Your task to perform on an android device: change alarm snooze length Image 0: 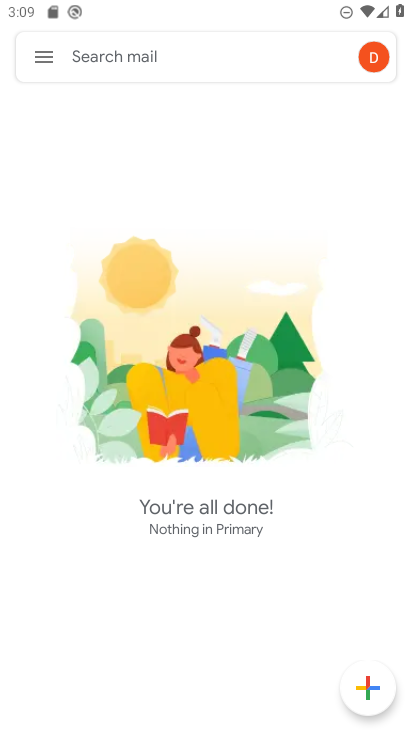
Step 0: press home button
Your task to perform on an android device: change alarm snooze length Image 1: 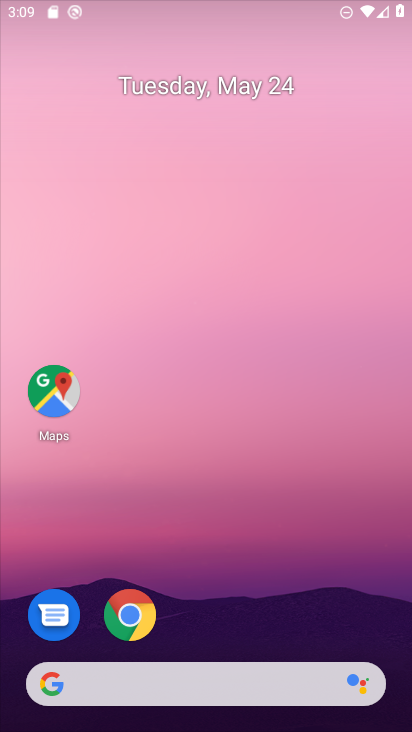
Step 1: drag from (268, 241) to (296, 13)
Your task to perform on an android device: change alarm snooze length Image 2: 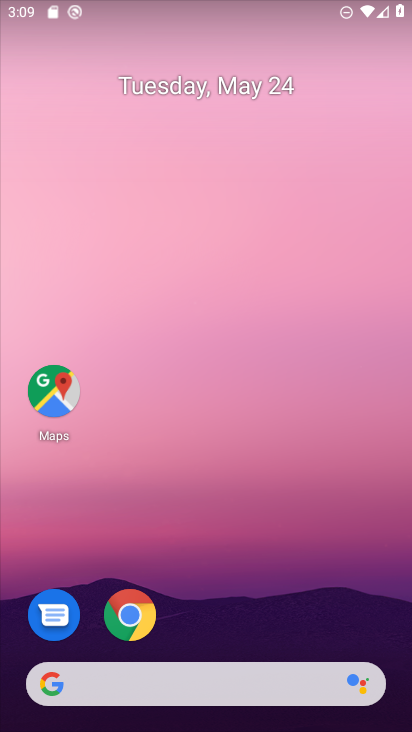
Step 2: drag from (237, 583) to (333, 63)
Your task to perform on an android device: change alarm snooze length Image 3: 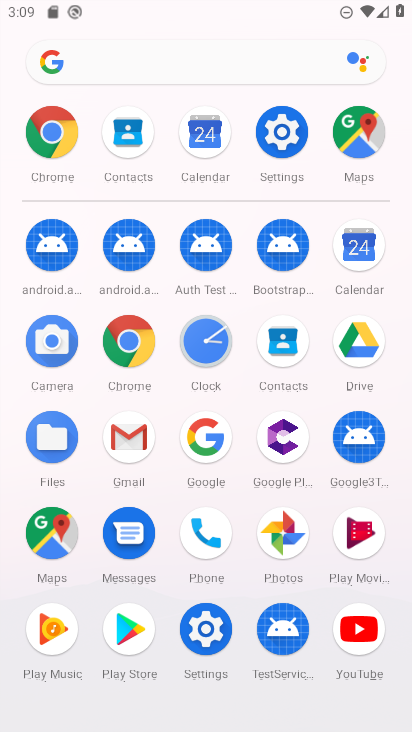
Step 3: click (291, 144)
Your task to perform on an android device: change alarm snooze length Image 4: 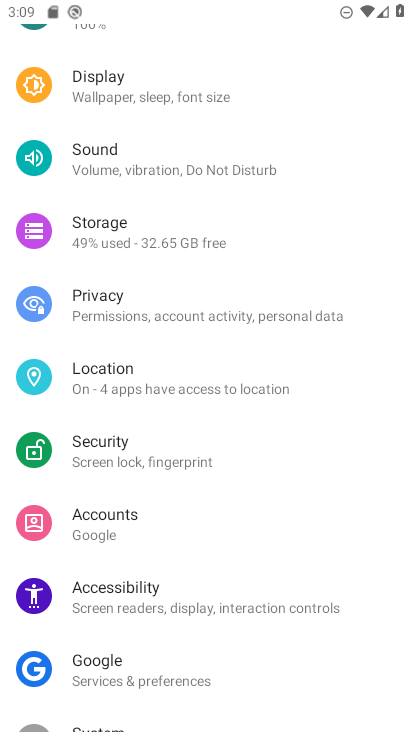
Step 4: drag from (223, 305) to (198, 620)
Your task to perform on an android device: change alarm snooze length Image 5: 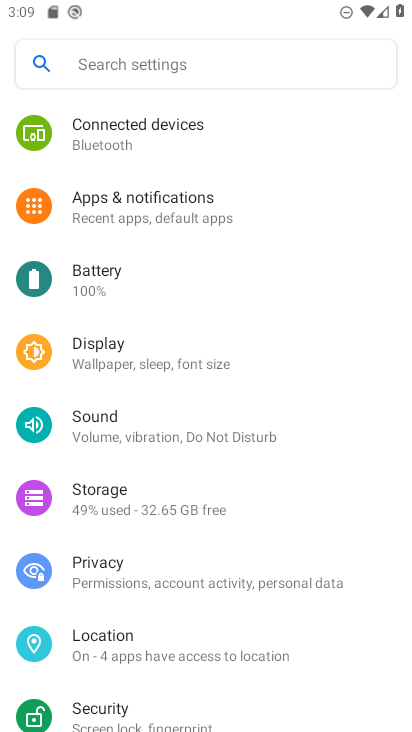
Step 5: drag from (253, 298) to (241, 635)
Your task to perform on an android device: change alarm snooze length Image 6: 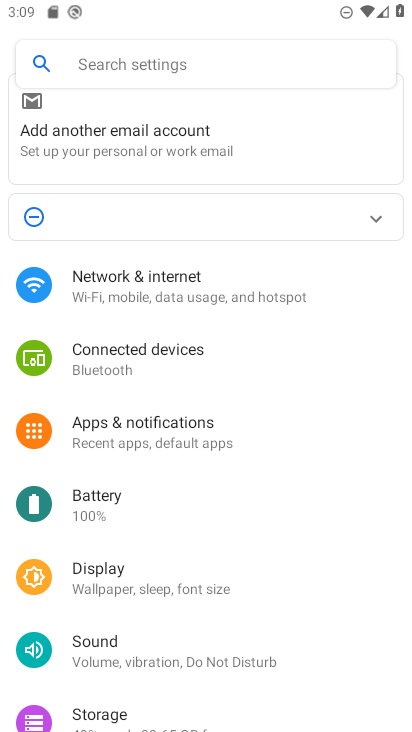
Step 6: drag from (202, 565) to (295, 191)
Your task to perform on an android device: change alarm snooze length Image 7: 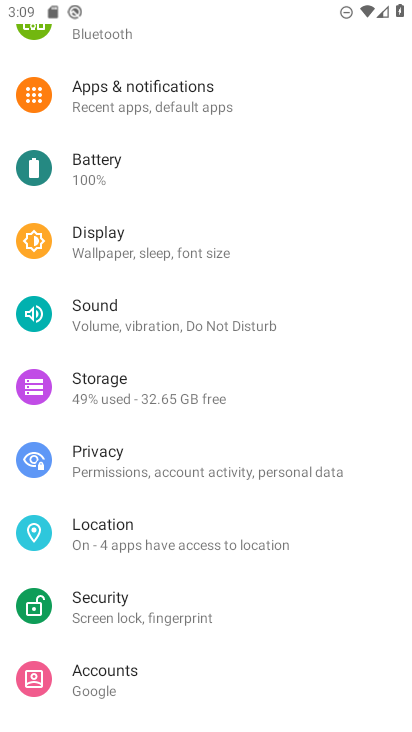
Step 7: press home button
Your task to perform on an android device: change alarm snooze length Image 8: 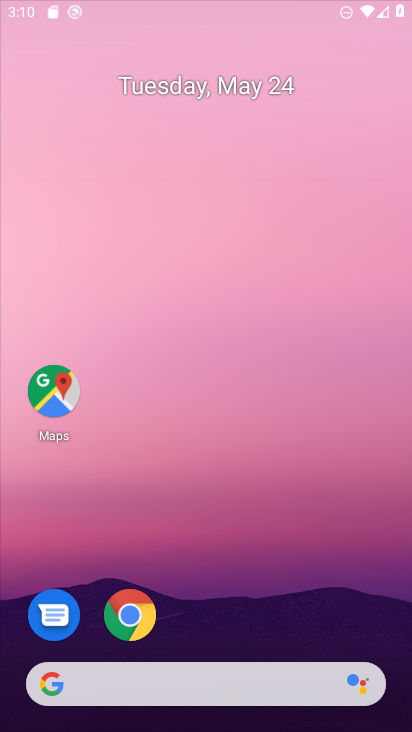
Step 8: drag from (233, 609) to (315, 134)
Your task to perform on an android device: change alarm snooze length Image 9: 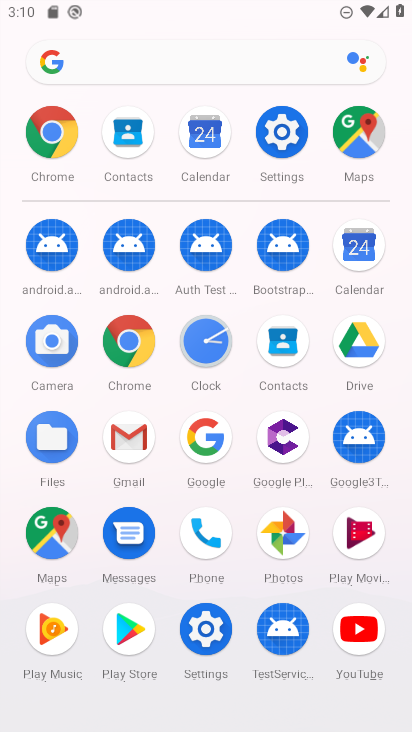
Step 9: click (208, 352)
Your task to perform on an android device: change alarm snooze length Image 10: 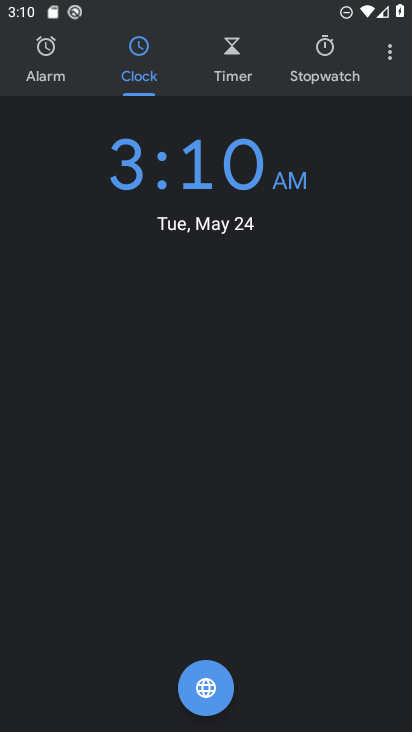
Step 10: click (395, 58)
Your task to perform on an android device: change alarm snooze length Image 11: 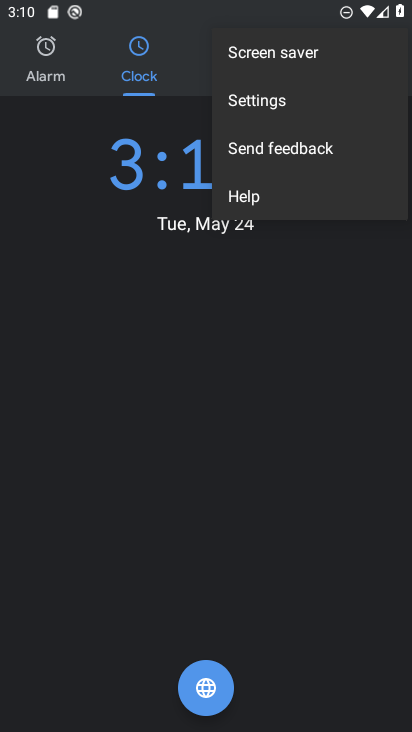
Step 11: click (257, 106)
Your task to perform on an android device: change alarm snooze length Image 12: 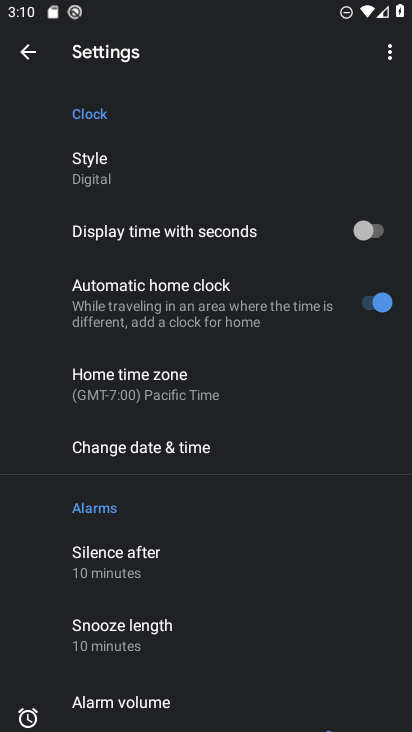
Step 12: drag from (243, 577) to (258, 469)
Your task to perform on an android device: change alarm snooze length Image 13: 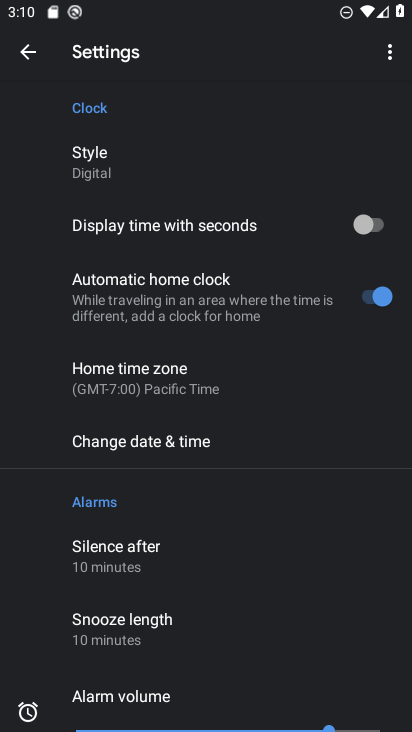
Step 13: click (144, 638)
Your task to perform on an android device: change alarm snooze length Image 14: 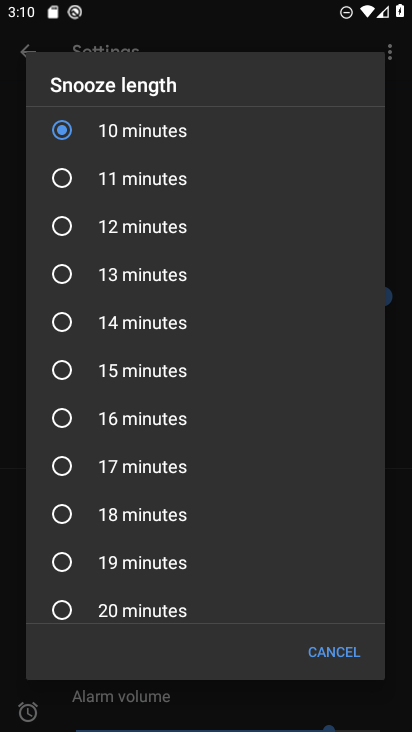
Step 14: click (86, 234)
Your task to perform on an android device: change alarm snooze length Image 15: 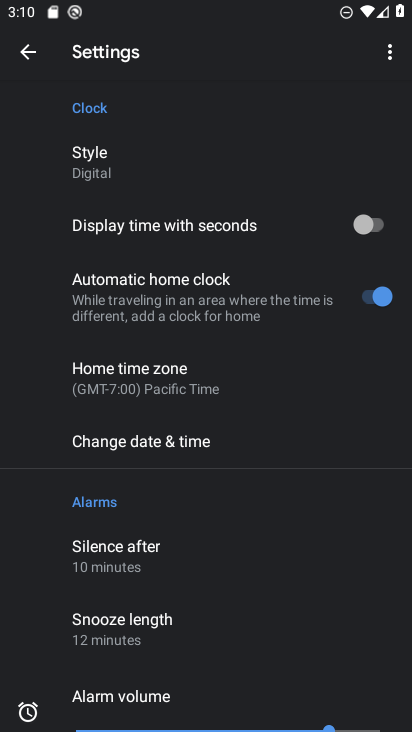
Step 15: task complete